Your task to perform on an android device: Search for "dell xps" on target.com, select the first entry, add it to the cart, then select checkout. Image 0: 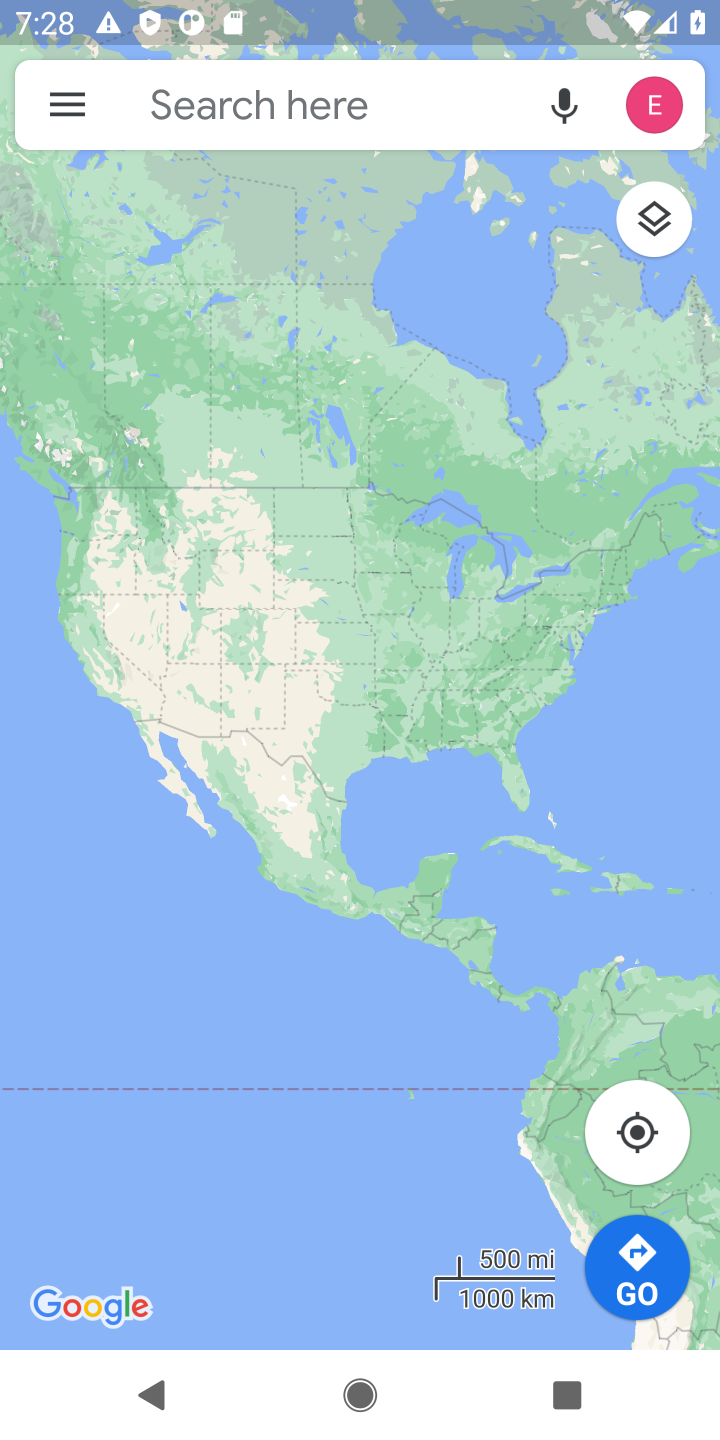
Step 0: press home button
Your task to perform on an android device: Search for "dell xps" on target.com, select the first entry, add it to the cart, then select checkout. Image 1: 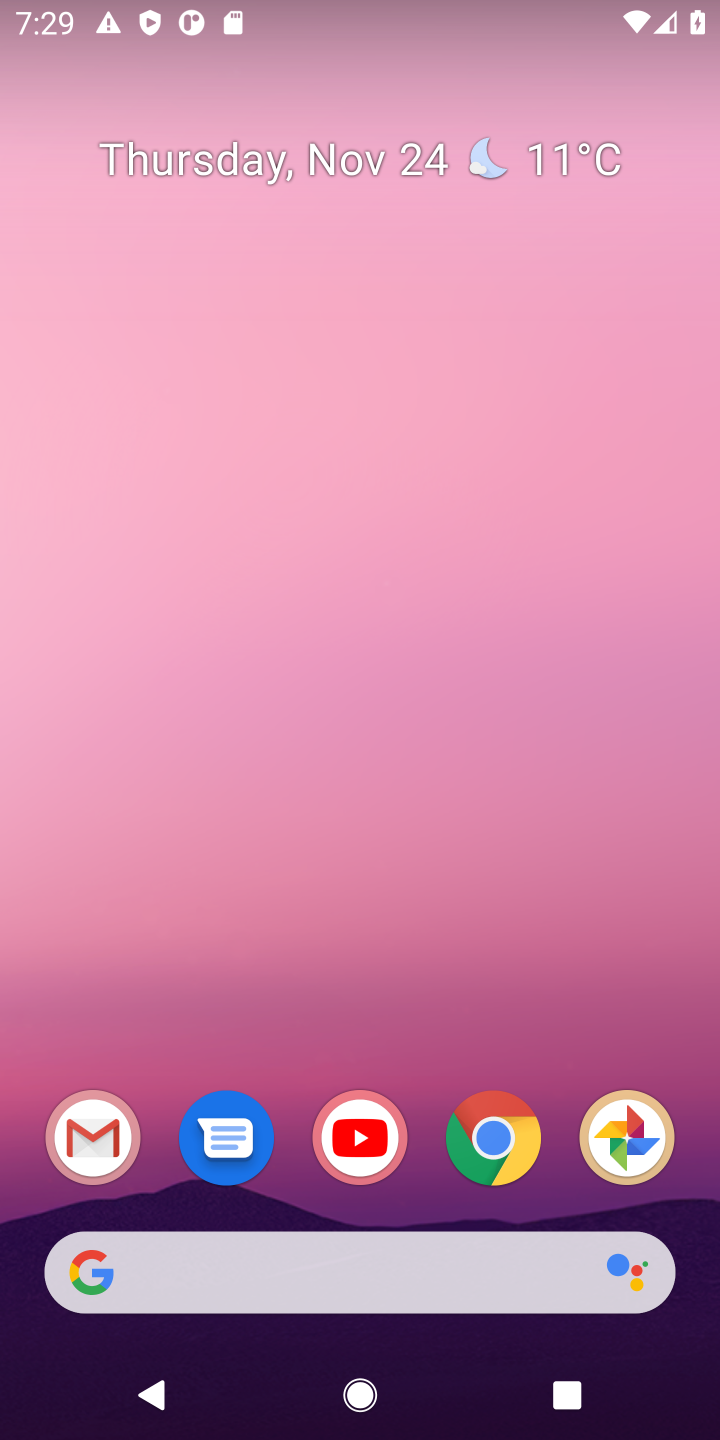
Step 1: click (325, 1270)
Your task to perform on an android device: Search for "dell xps" on target.com, select the first entry, add it to the cart, then select checkout. Image 2: 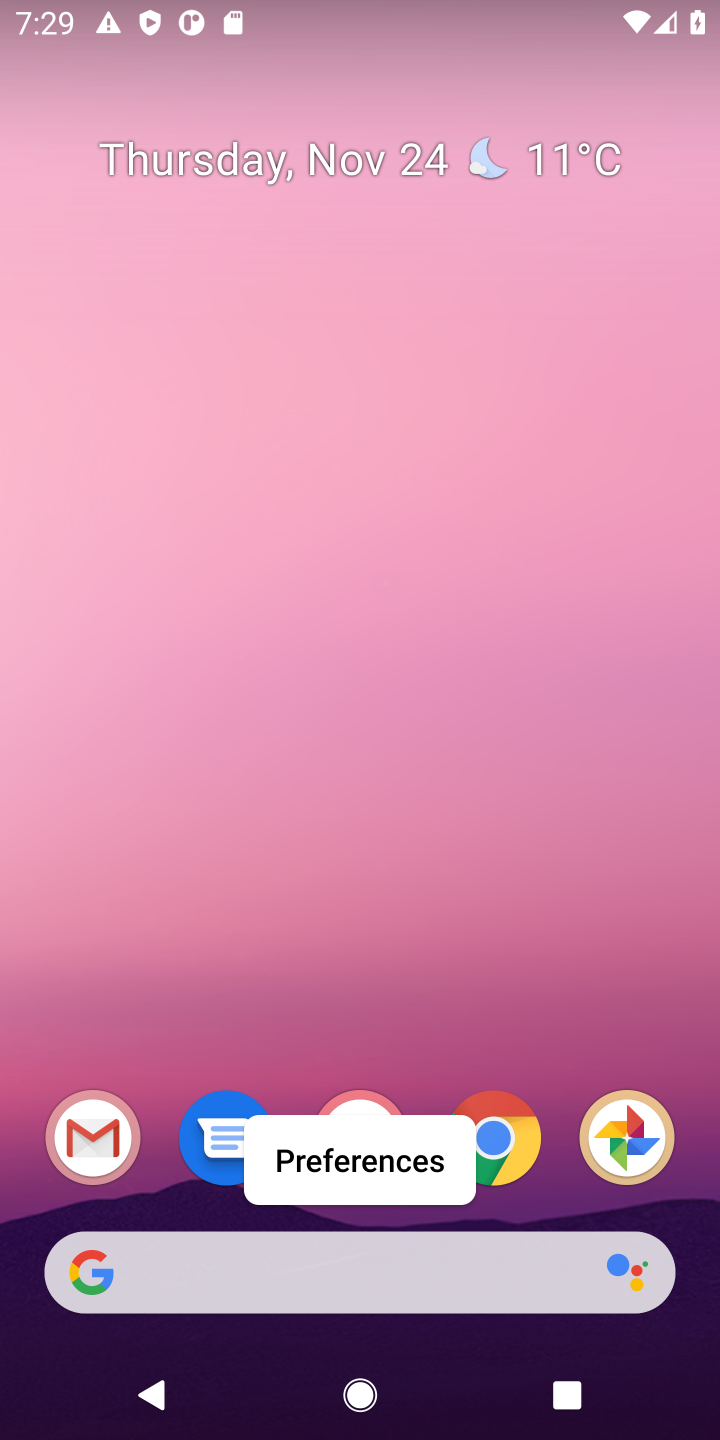
Step 2: click (358, 1281)
Your task to perform on an android device: Search for "dell xps" on target.com, select the first entry, add it to the cart, then select checkout. Image 3: 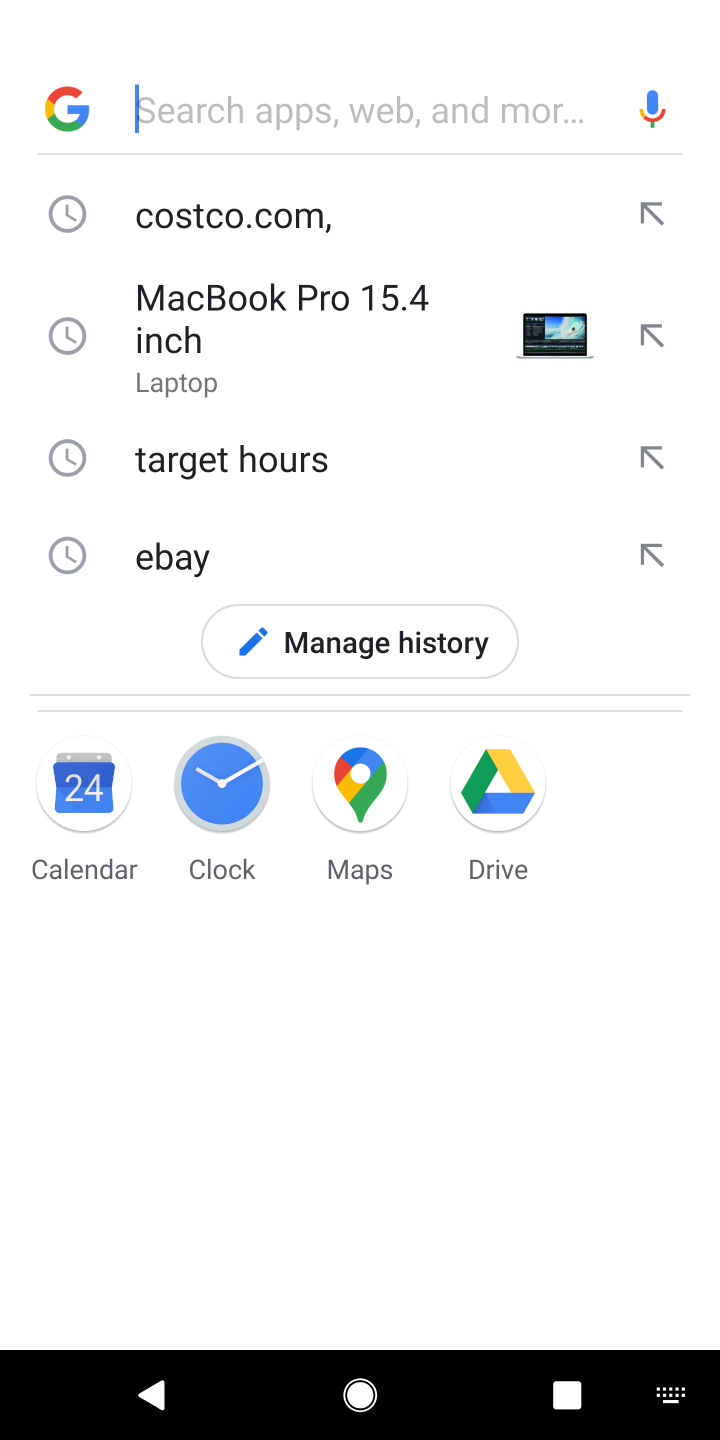
Step 3: type " target.com,"
Your task to perform on an android device: Search for "dell xps" on target.com, select the first entry, add it to the cart, then select checkout. Image 4: 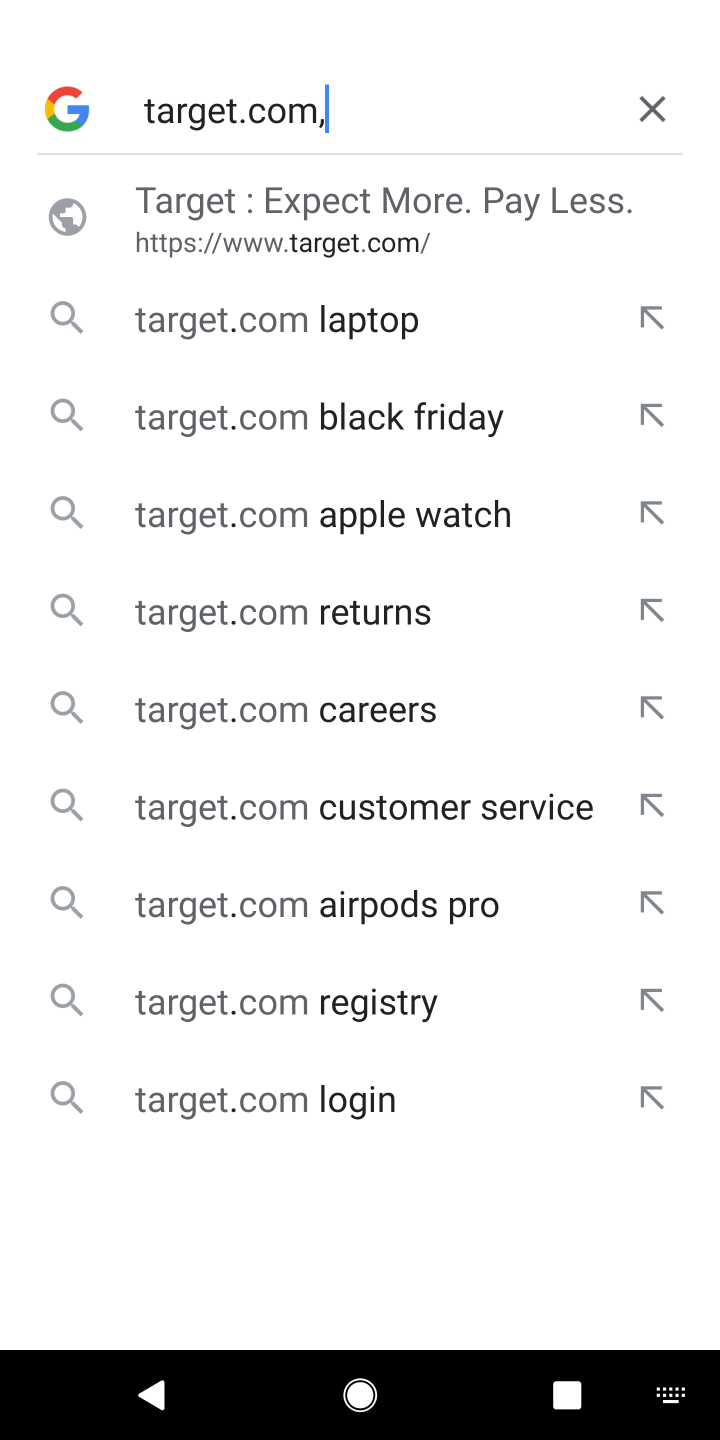
Step 4: click (348, 255)
Your task to perform on an android device: Search for "dell xps" on target.com, select the first entry, add it to the cart, then select checkout. Image 5: 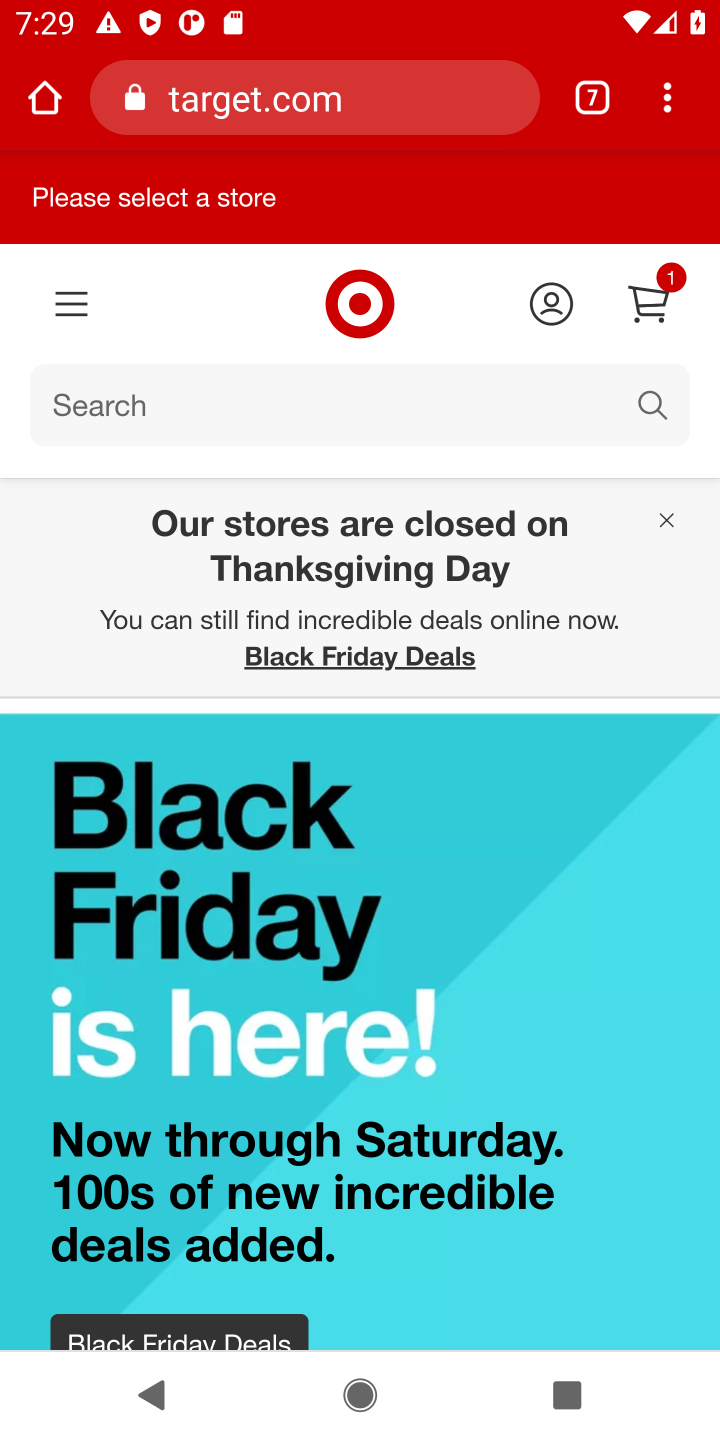
Step 5: click (400, 412)
Your task to perform on an android device: Search for "dell xps" on target.com, select the first entry, add it to the cart, then select checkout. Image 6: 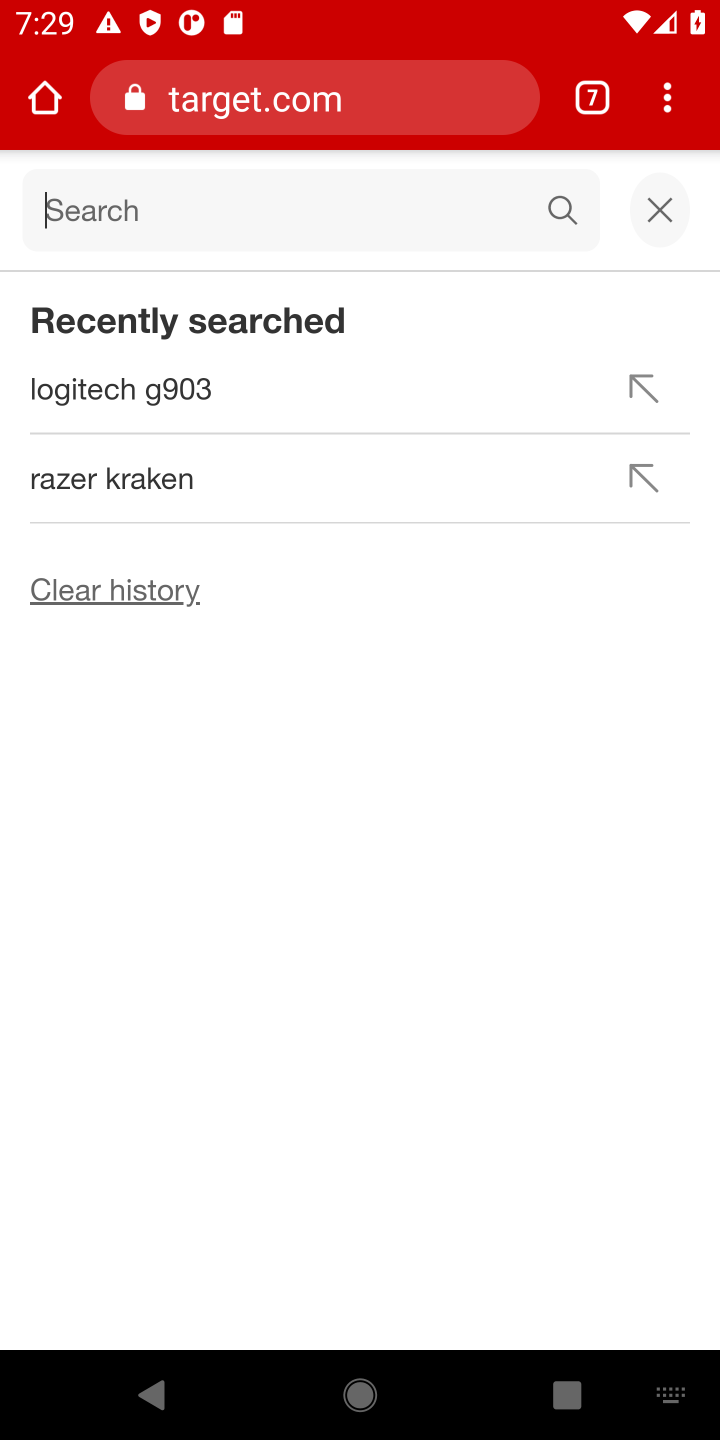
Step 6: type "dell xps"
Your task to perform on an android device: Search for "dell xps" on target.com, select the first entry, add it to the cart, then select checkout. Image 7: 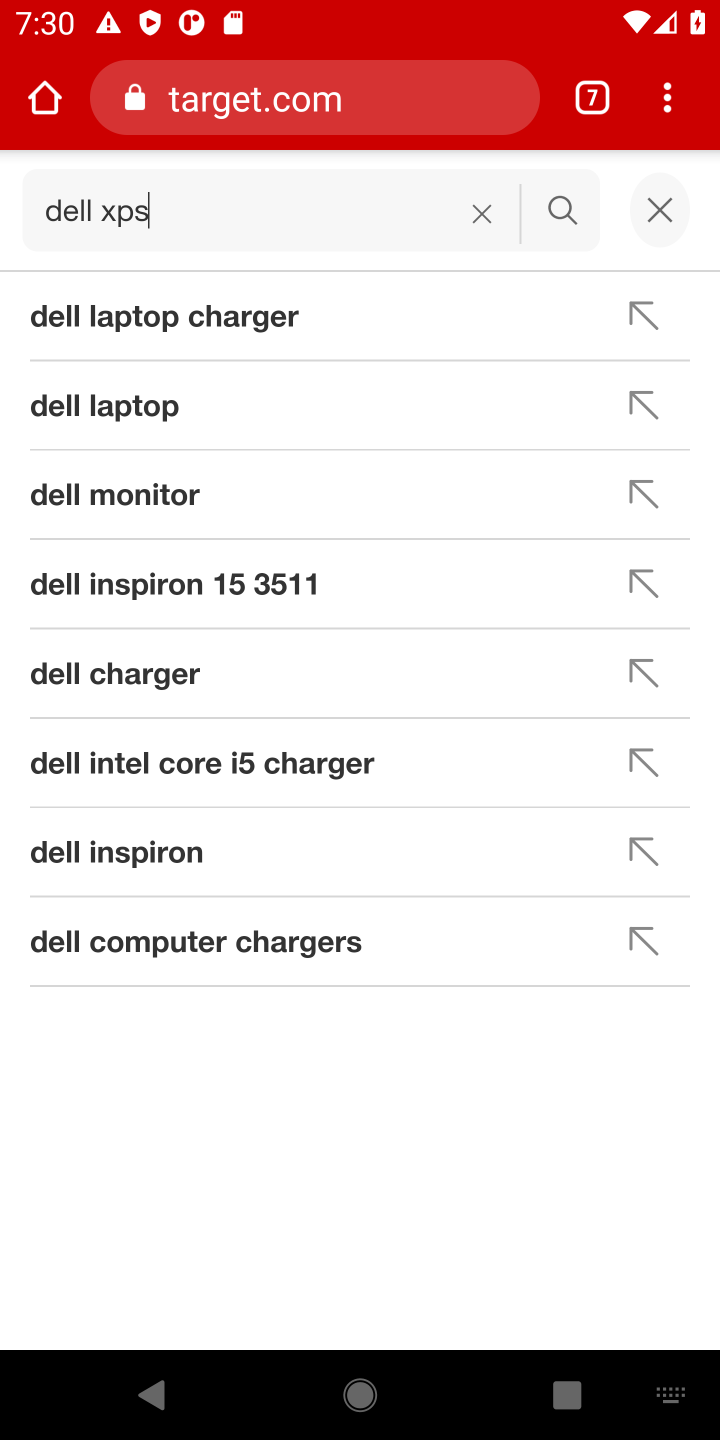
Step 7: click (135, 432)
Your task to perform on an android device: Search for "dell xps" on target.com, select the first entry, add it to the cart, then select checkout. Image 8: 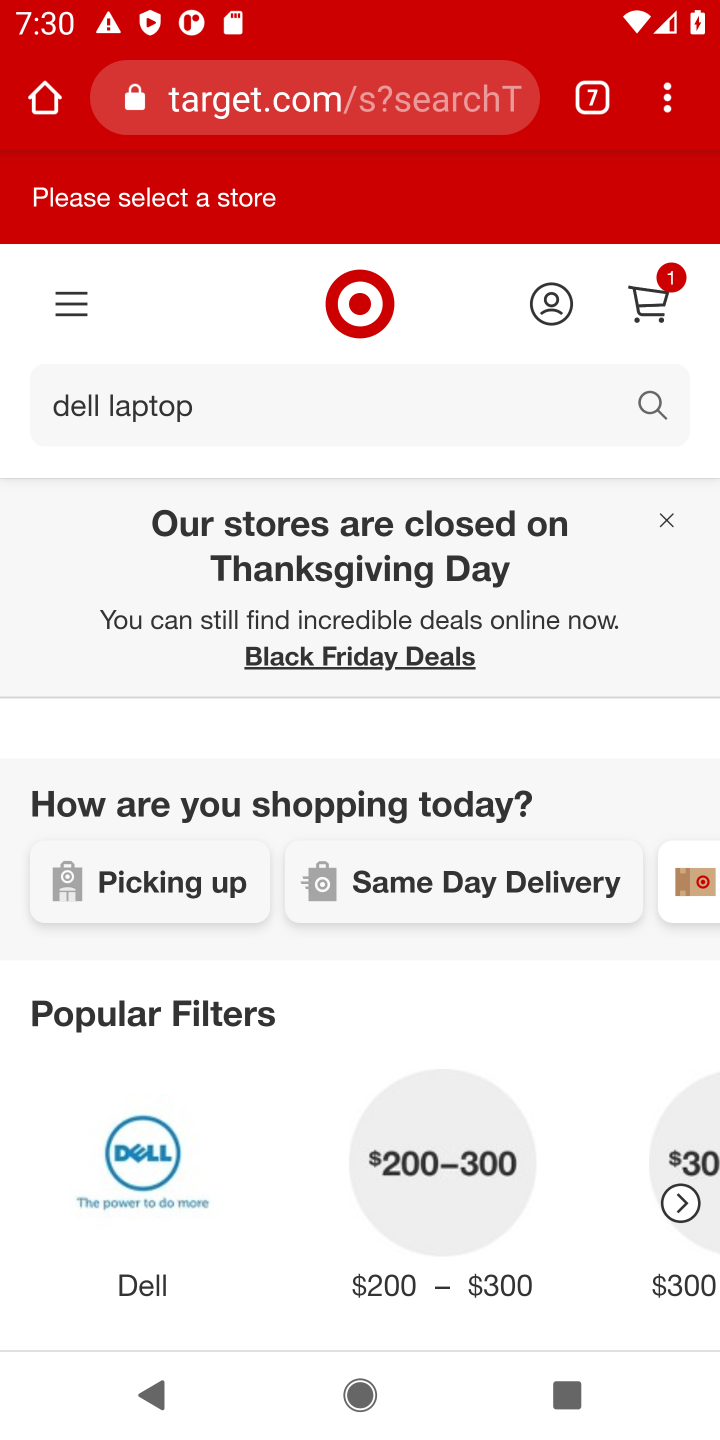
Step 8: drag from (282, 1178) to (437, 618)
Your task to perform on an android device: Search for "dell xps" on target.com, select the first entry, add it to the cart, then select checkout. Image 9: 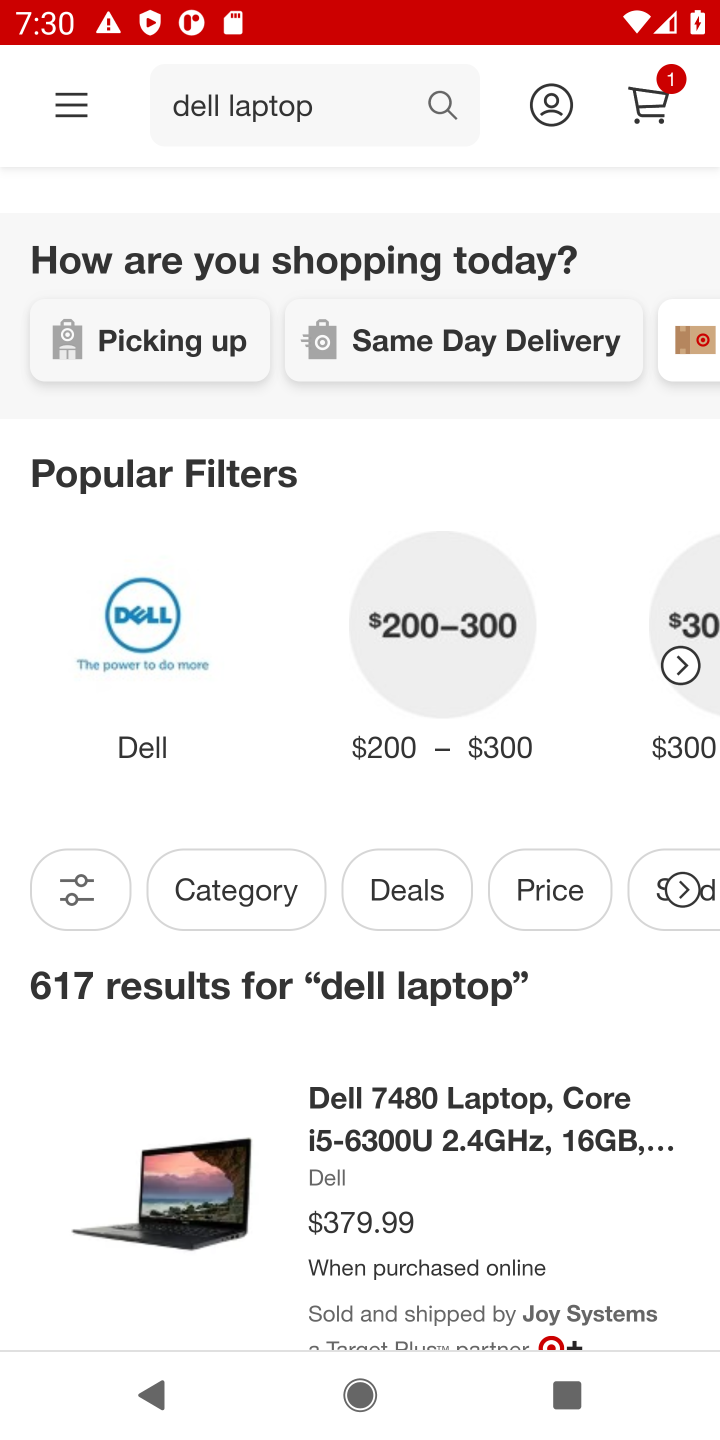
Step 9: click (336, 1119)
Your task to perform on an android device: Search for "dell xps" on target.com, select the first entry, add it to the cart, then select checkout. Image 10: 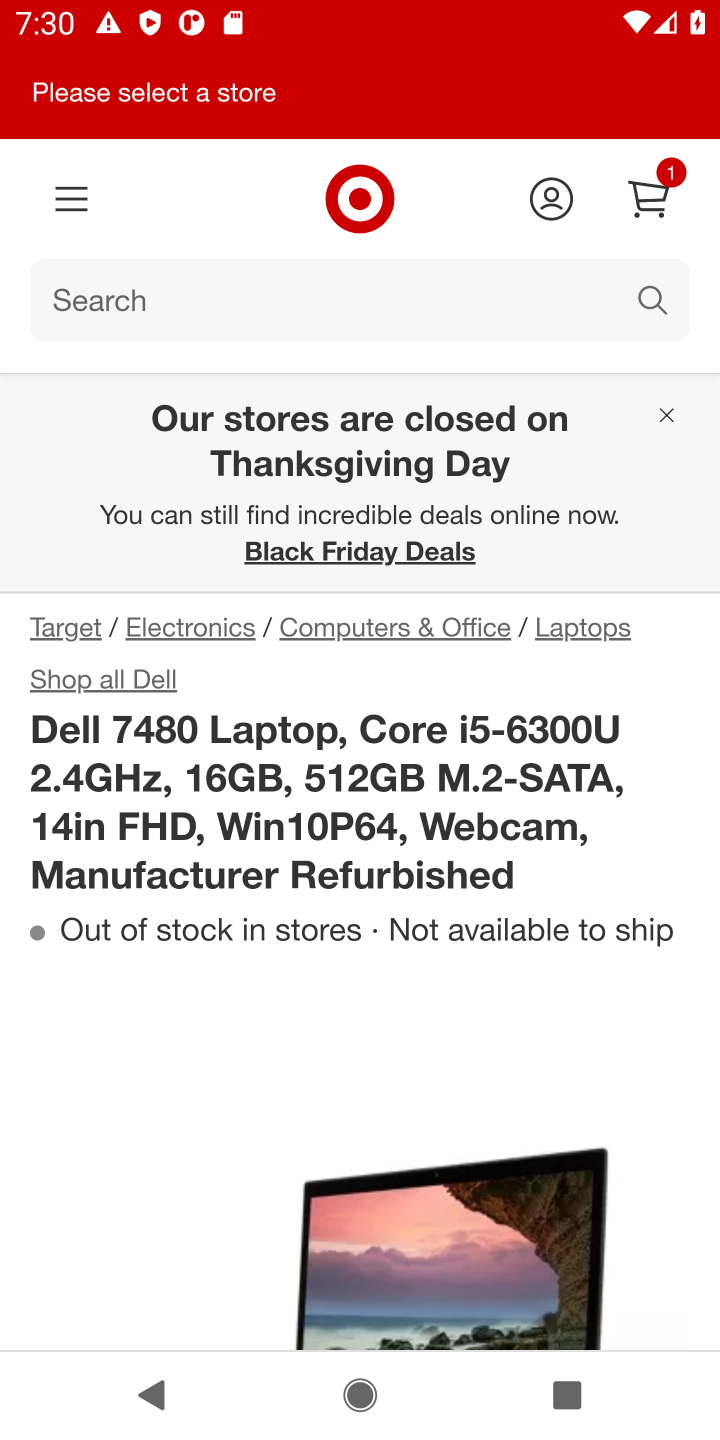
Step 10: drag from (336, 1095) to (371, 628)
Your task to perform on an android device: Search for "dell xps" on target.com, select the first entry, add it to the cart, then select checkout. Image 11: 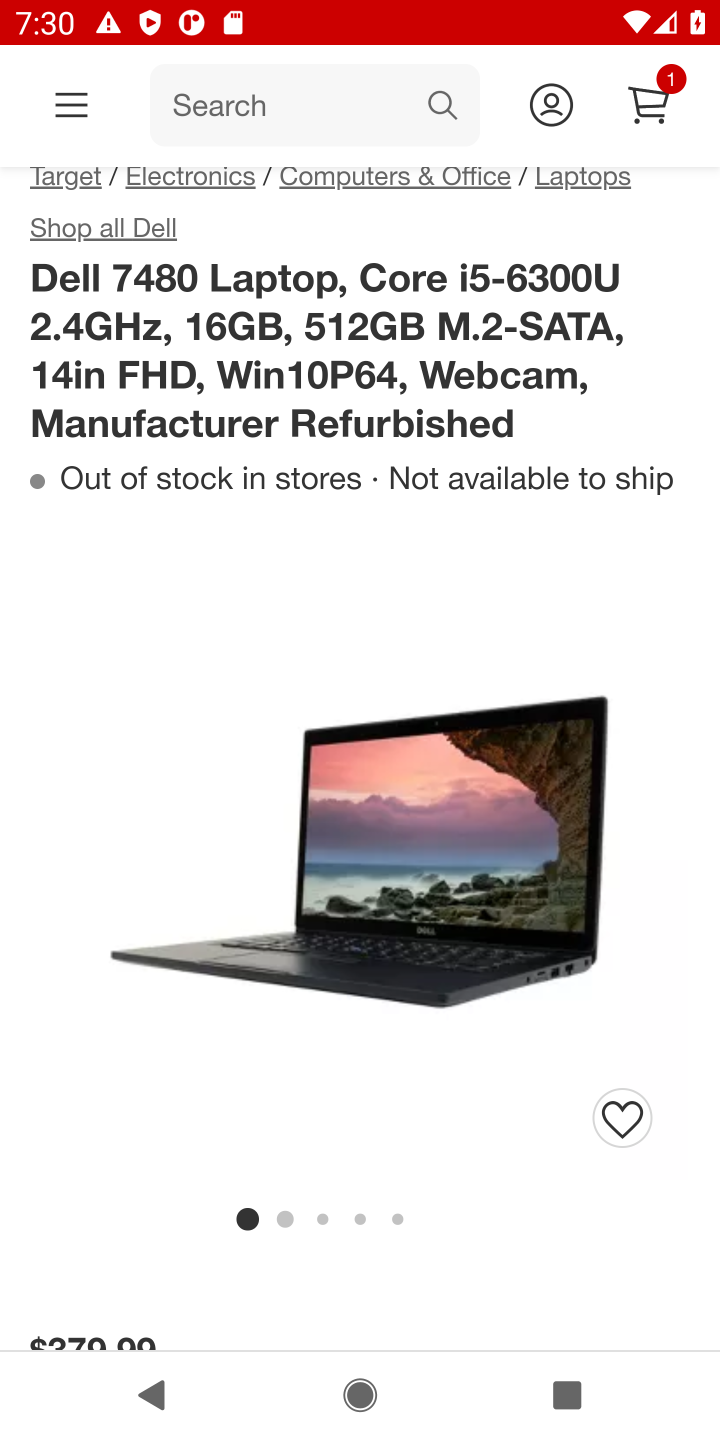
Step 11: drag from (353, 976) to (547, 227)
Your task to perform on an android device: Search for "dell xps" on target.com, select the first entry, add it to the cart, then select checkout. Image 12: 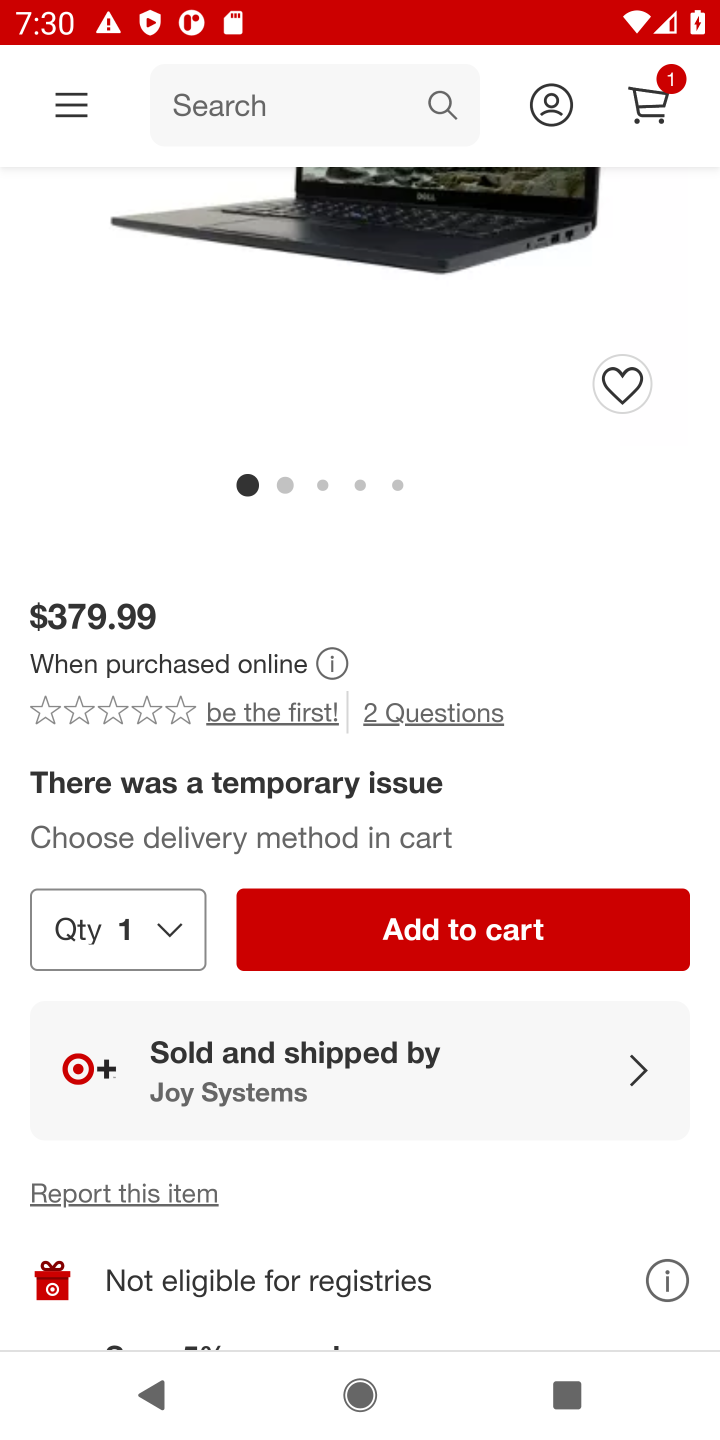
Step 12: click (435, 926)
Your task to perform on an android device: Search for "dell xps" on target.com, select the first entry, add it to the cart, then select checkout. Image 13: 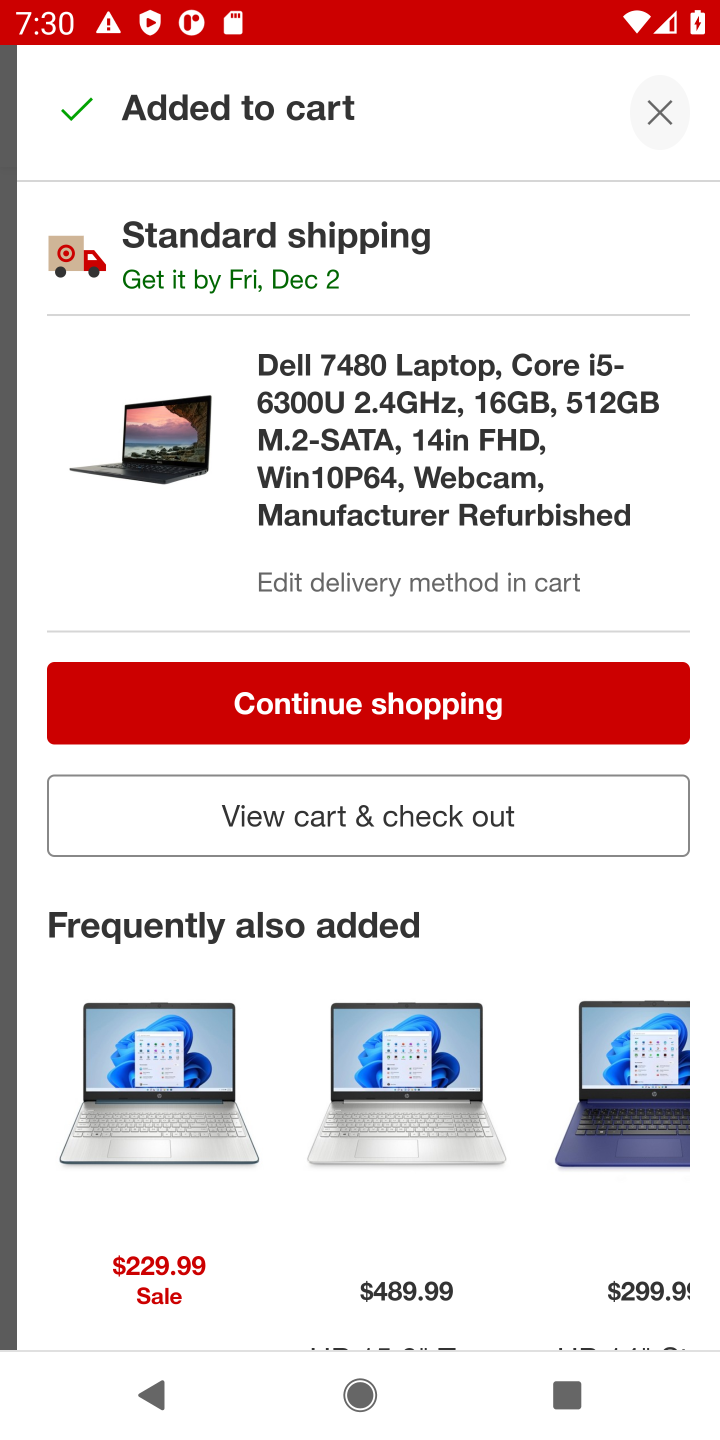
Step 13: click (340, 815)
Your task to perform on an android device: Search for "dell xps" on target.com, select the first entry, add it to the cart, then select checkout. Image 14: 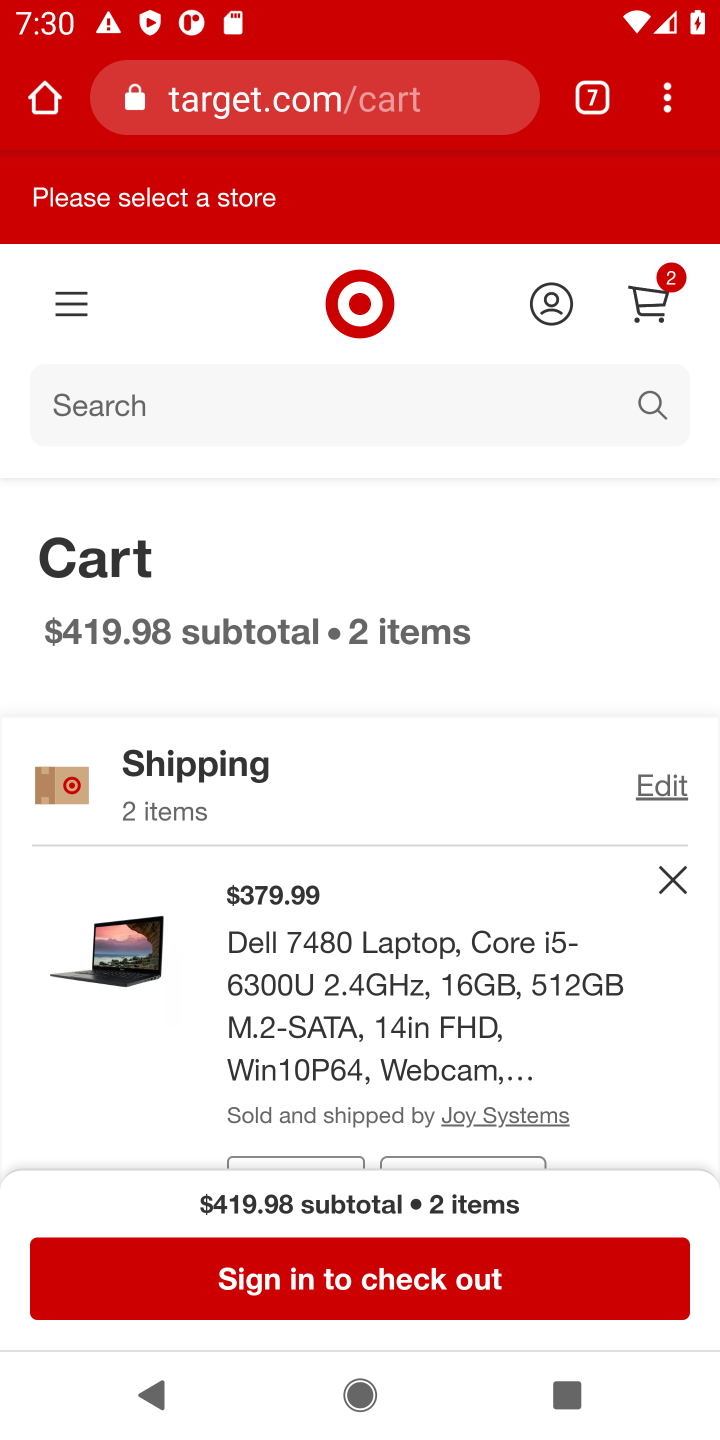
Step 14: click (349, 1293)
Your task to perform on an android device: Search for "dell xps" on target.com, select the first entry, add it to the cart, then select checkout. Image 15: 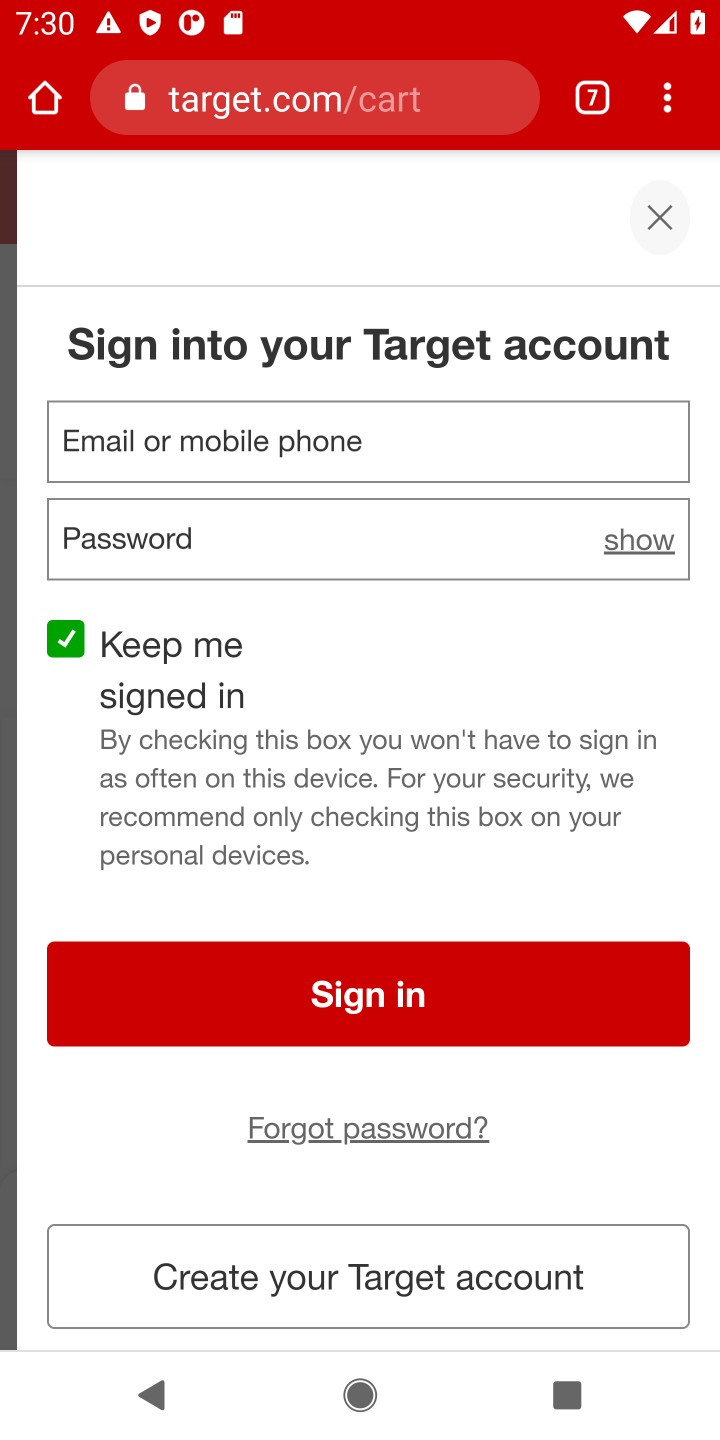
Step 15: task complete